Your task to perform on an android device: Go to CNN.com Image 0: 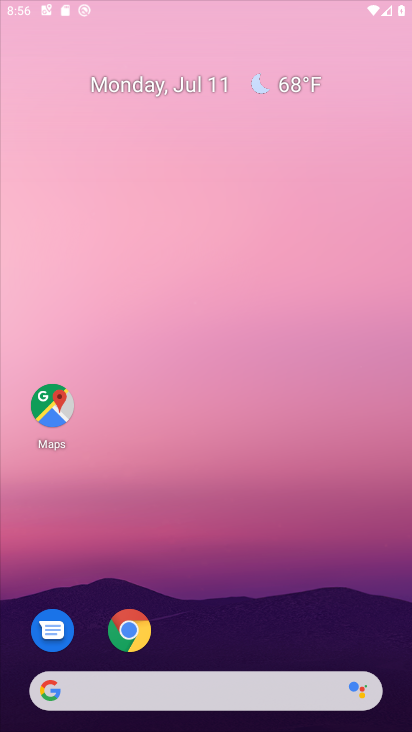
Step 0: drag from (232, 642) to (154, 7)
Your task to perform on an android device: Go to CNN.com Image 1: 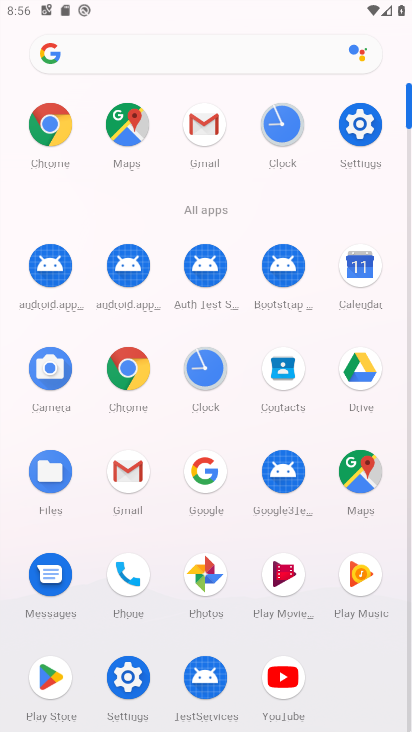
Step 1: click (116, 380)
Your task to perform on an android device: Go to CNN.com Image 2: 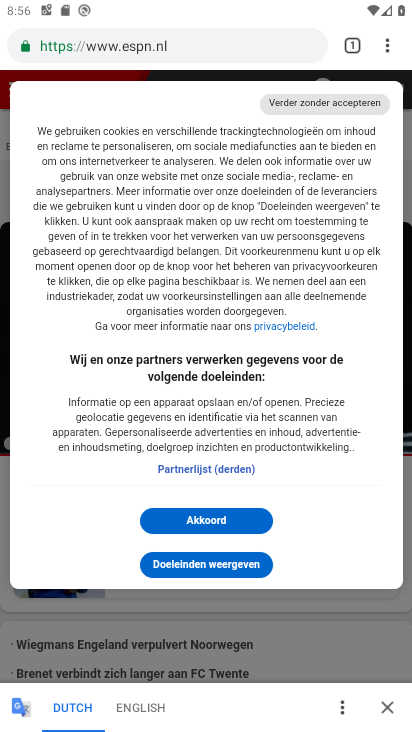
Step 2: click (161, 40)
Your task to perform on an android device: Go to CNN.com Image 3: 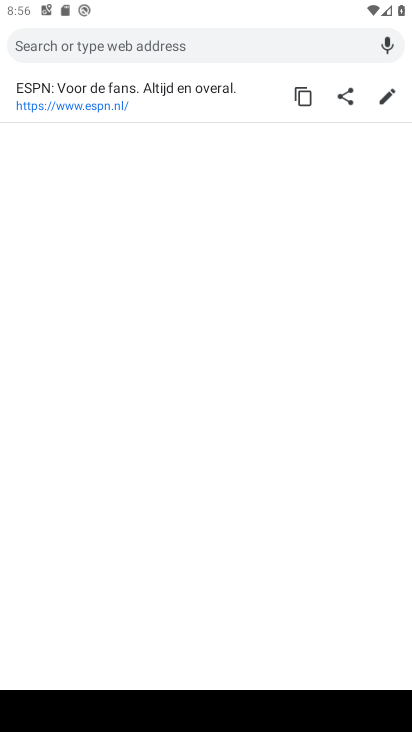
Step 3: type "CNN.com"
Your task to perform on an android device: Go to CNN.com Image 4: 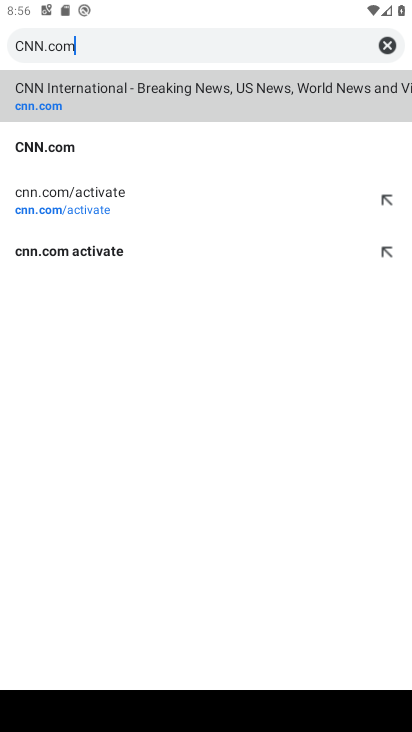
Step 4: click (80, 158)
Your task to perform on an android device: Go to CNN.com Image 5: 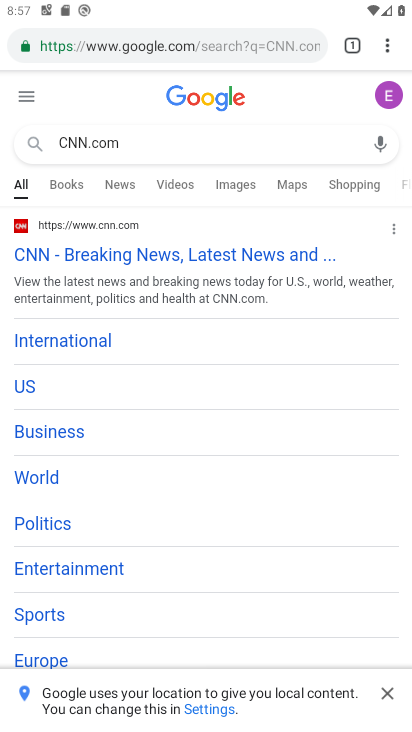
Step 5: task complete